Your task to perform on an android device: Go to location settings Image 0: 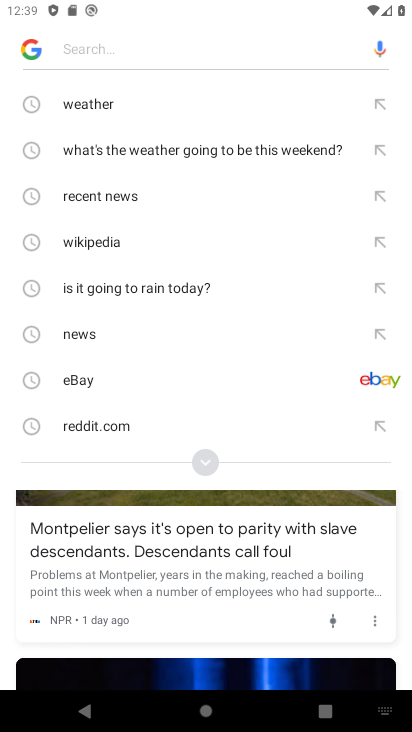
Step 0: press home button
Your task to perform on an android device: Go to location settings Image 1: 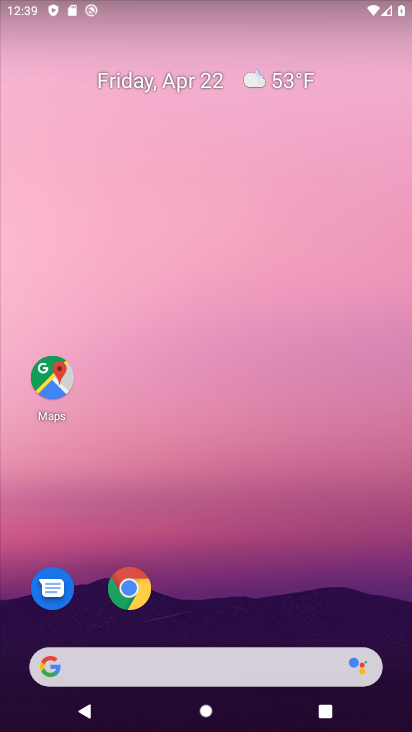
Step 1: drag from (193, 565) to (251, 95)
Your task to perform on an android device: Go to location settings Image 2: 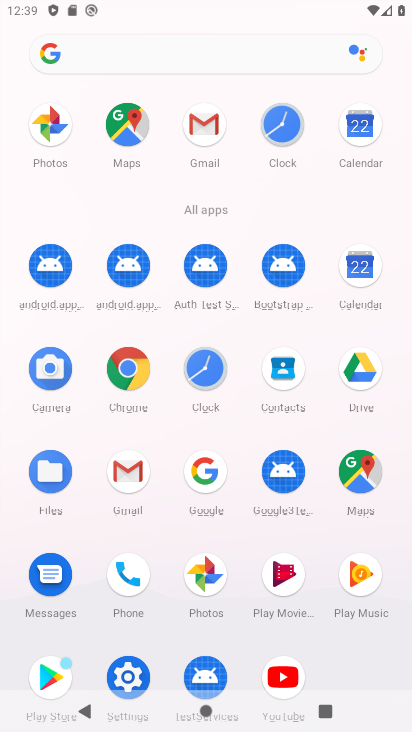
Step 2: click (126, 674)
Your task to perform on an android device: Go to location settings Image 3: 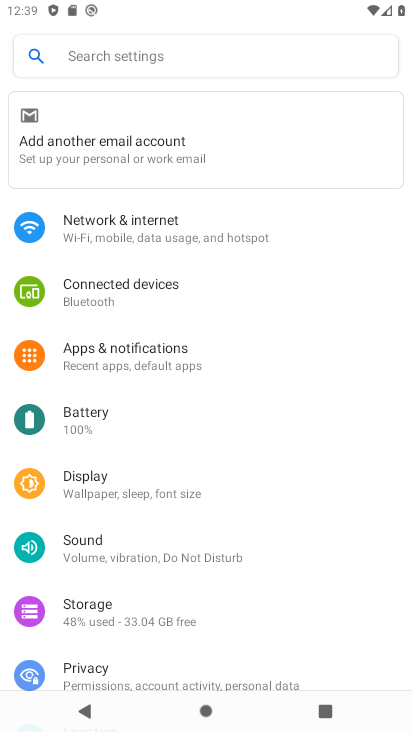
Step 3: drag from (153, 545) to (272, 129)
Your task to perform on an android device: Go to location settings Image 4: 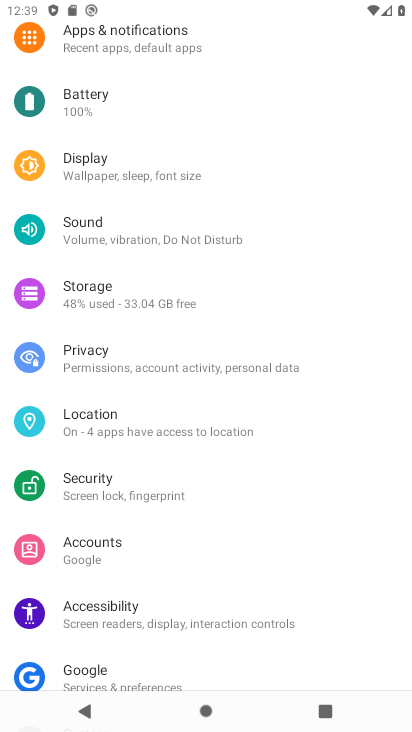
Step 4: click (133, 420)
Your task to perform on an android device: Go to location settings Image 5: 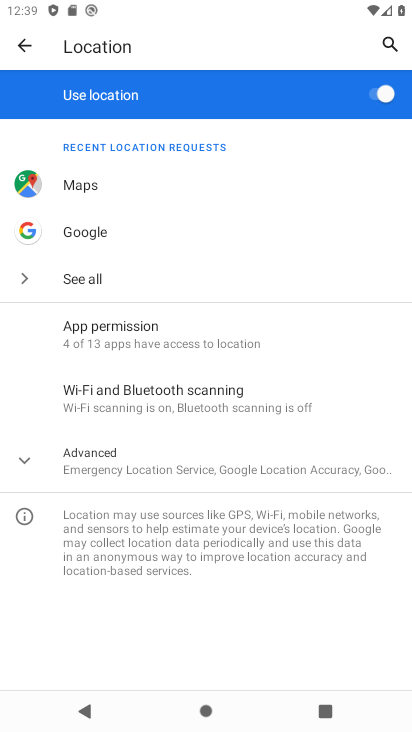
Step 5: task complete